Your task to perform on an android device: Toggle the flashlight Image 0: 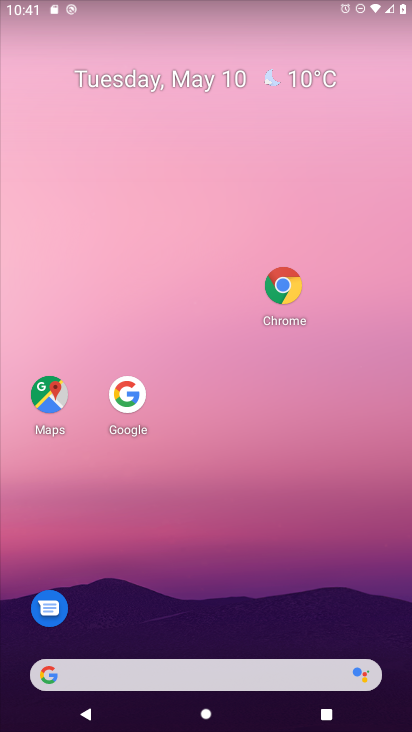
Step 0: drag from (250, 5) to (210, 384)
Your task to perform on an android device: Toggle the flashlight Image 1: 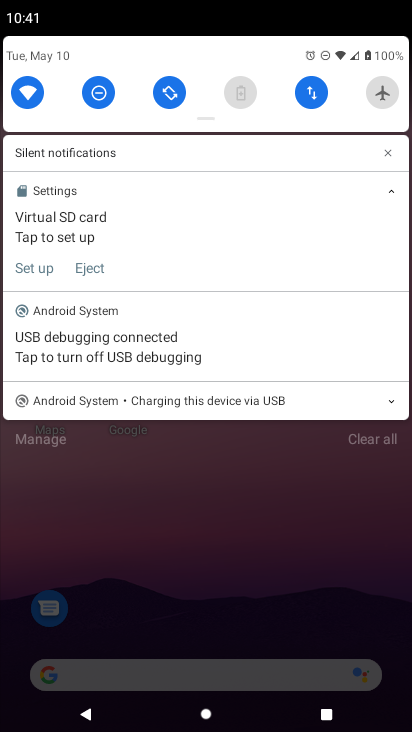
Step 1: task complete